Your task to perform on an android device: Go to settings Image 0: 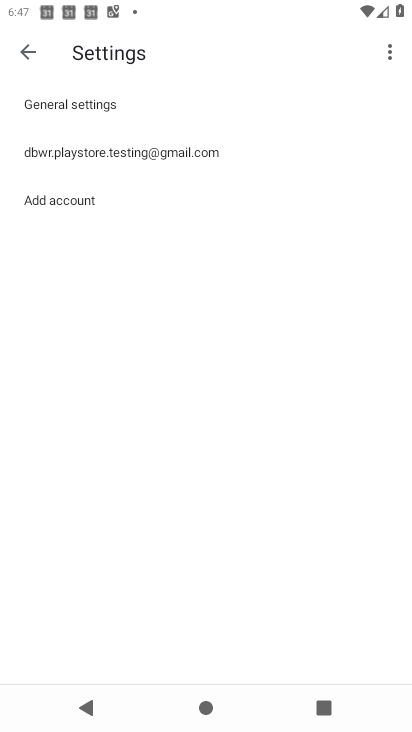
Step 0: press home button
Your task to perform on an android device: Go to settings Image 1: 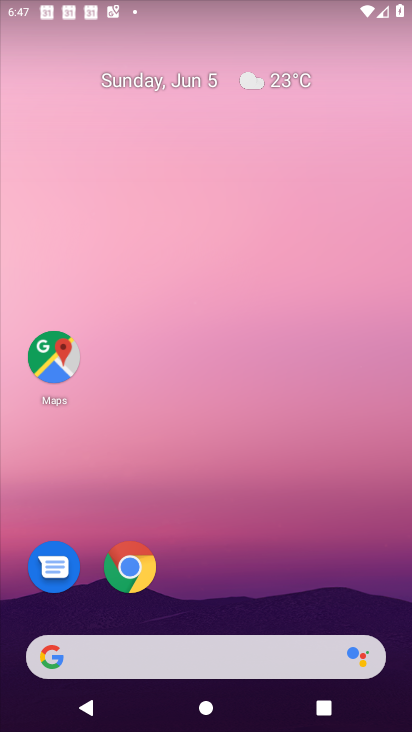
Step 1: drag from (395, 638) to (254, 26)
Your task to perform on an android device: Go to settings Image 2: 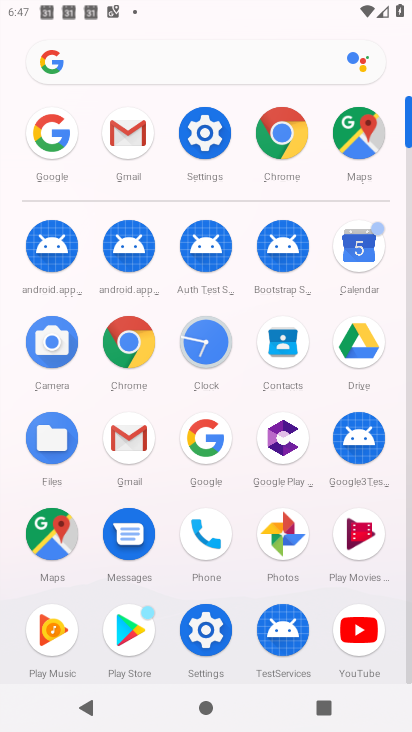
Step 2: click (218, 147)
Your task to perform on an android device: Go to settings Image 3: 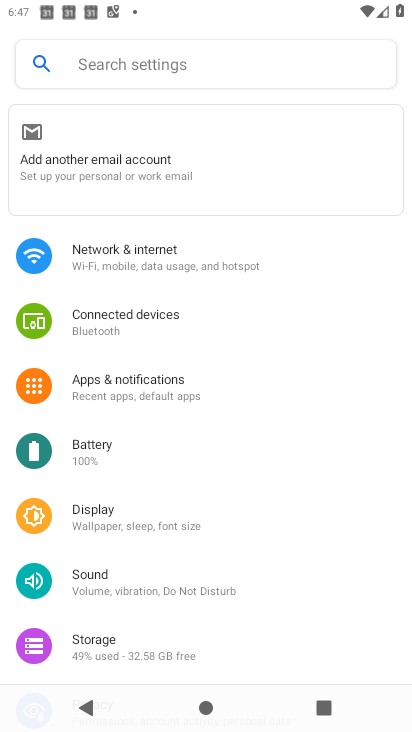
Step 3: task complete